Your task to perform on an android device: open app "Etsy: Buy & Sell Unique Items" (install if not already installed) Image 0: 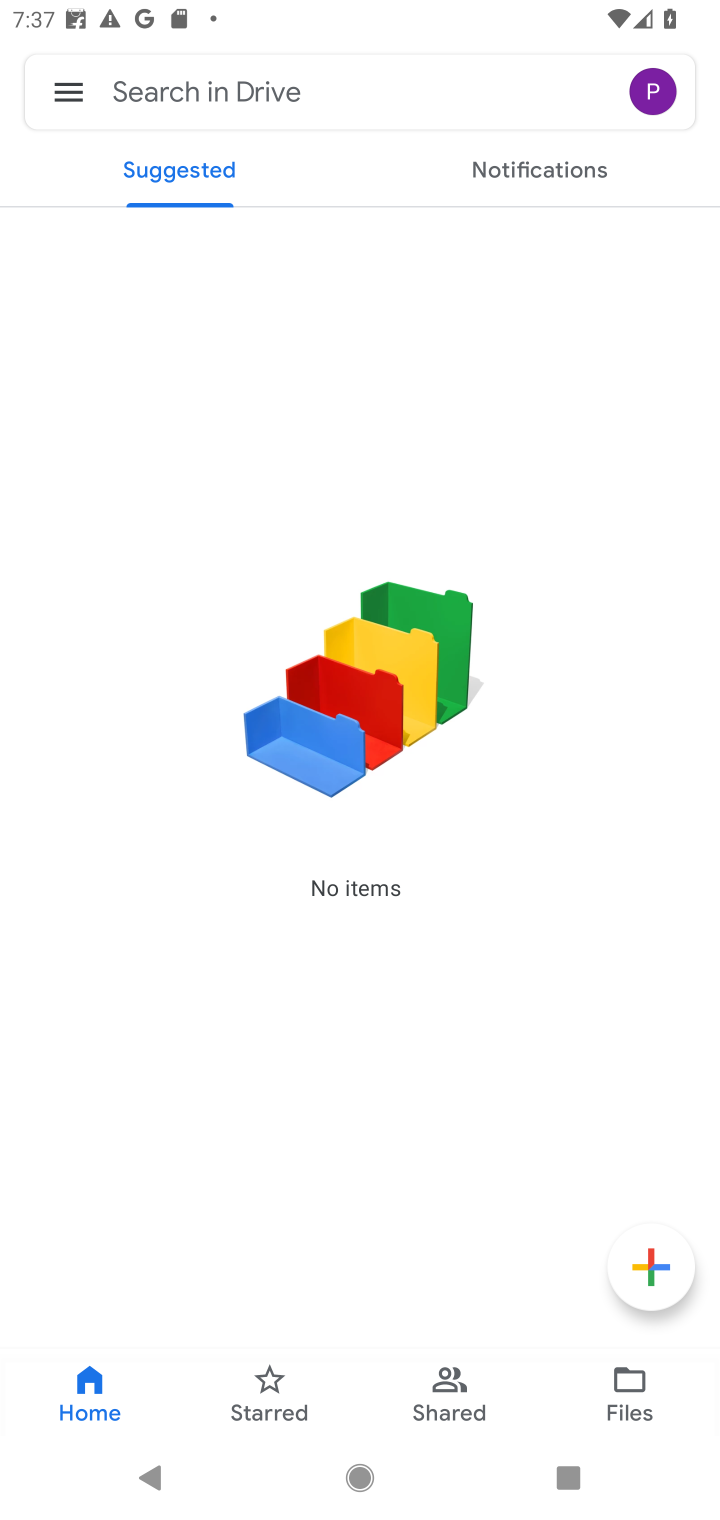
Step 0: press home button
Your task to perform on an android device: open app "Etsy: Buy & Sell Unique Items" (install if not already installed) Image 1: 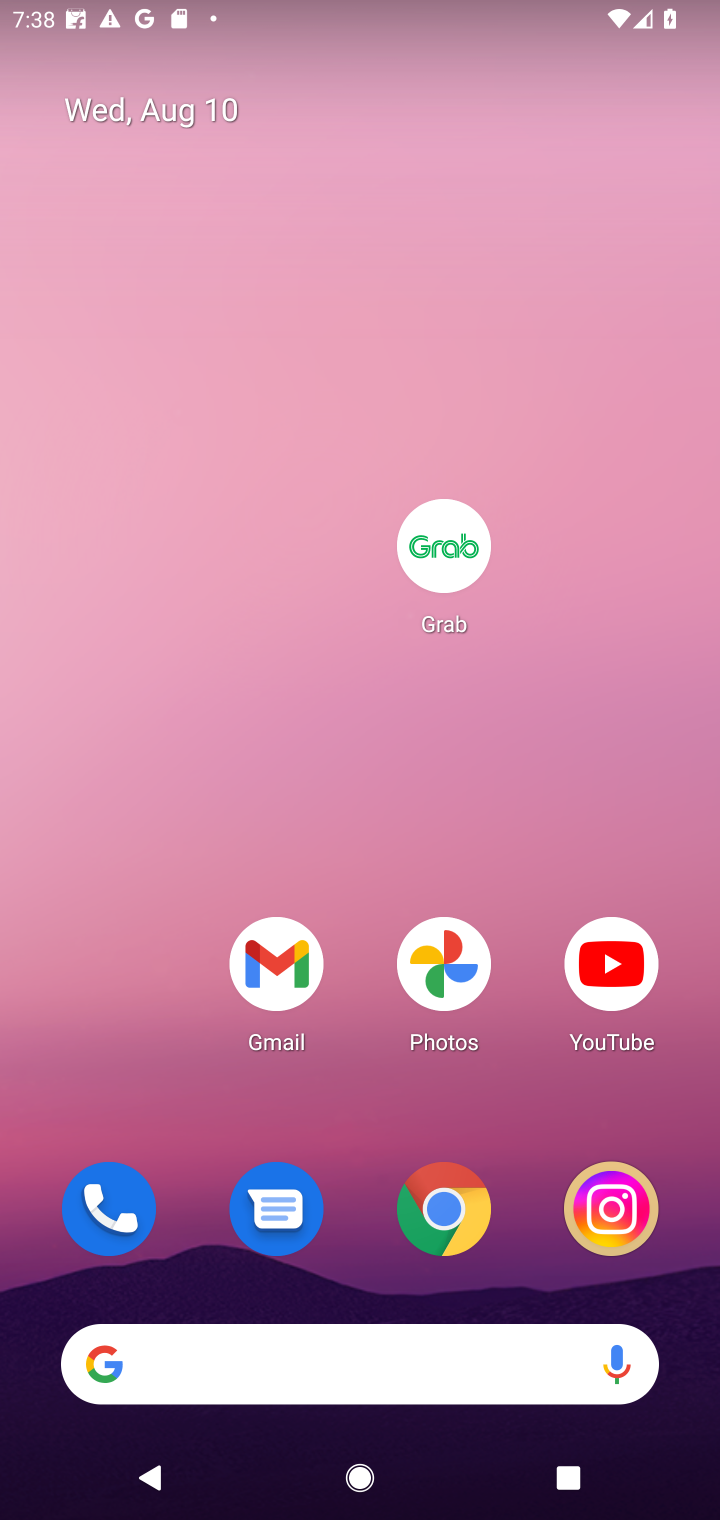
Step 1: drag from (364, 1275) to (389, 25)
Your task to perform on an android device: open app "Etsy: Buy & Sell Unique Items" (install if not already installed) Image 2: 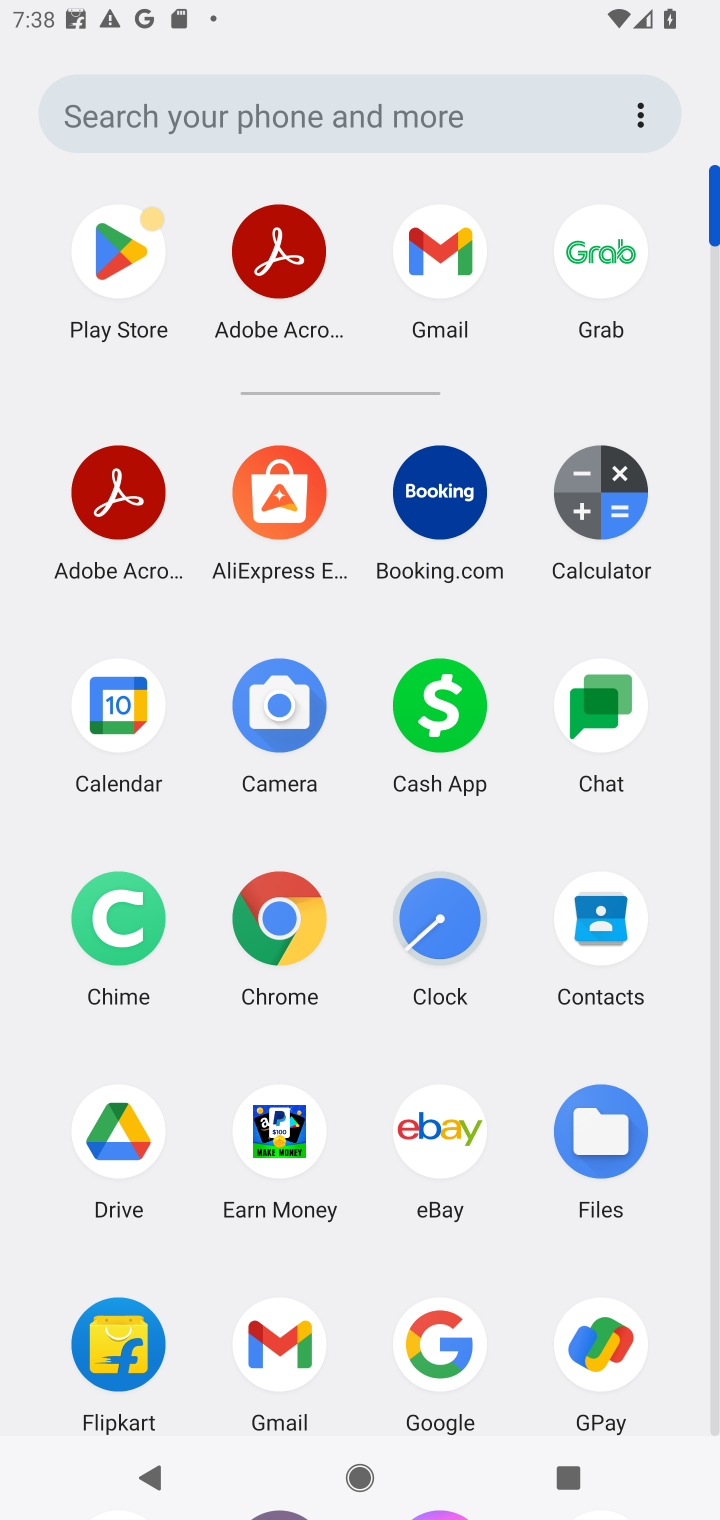
Step 2: click (156, 249)
Your task to perform on an android device: open app "Etsy: Buy & Sell Unique Items" (install if not already installed) Image 3: 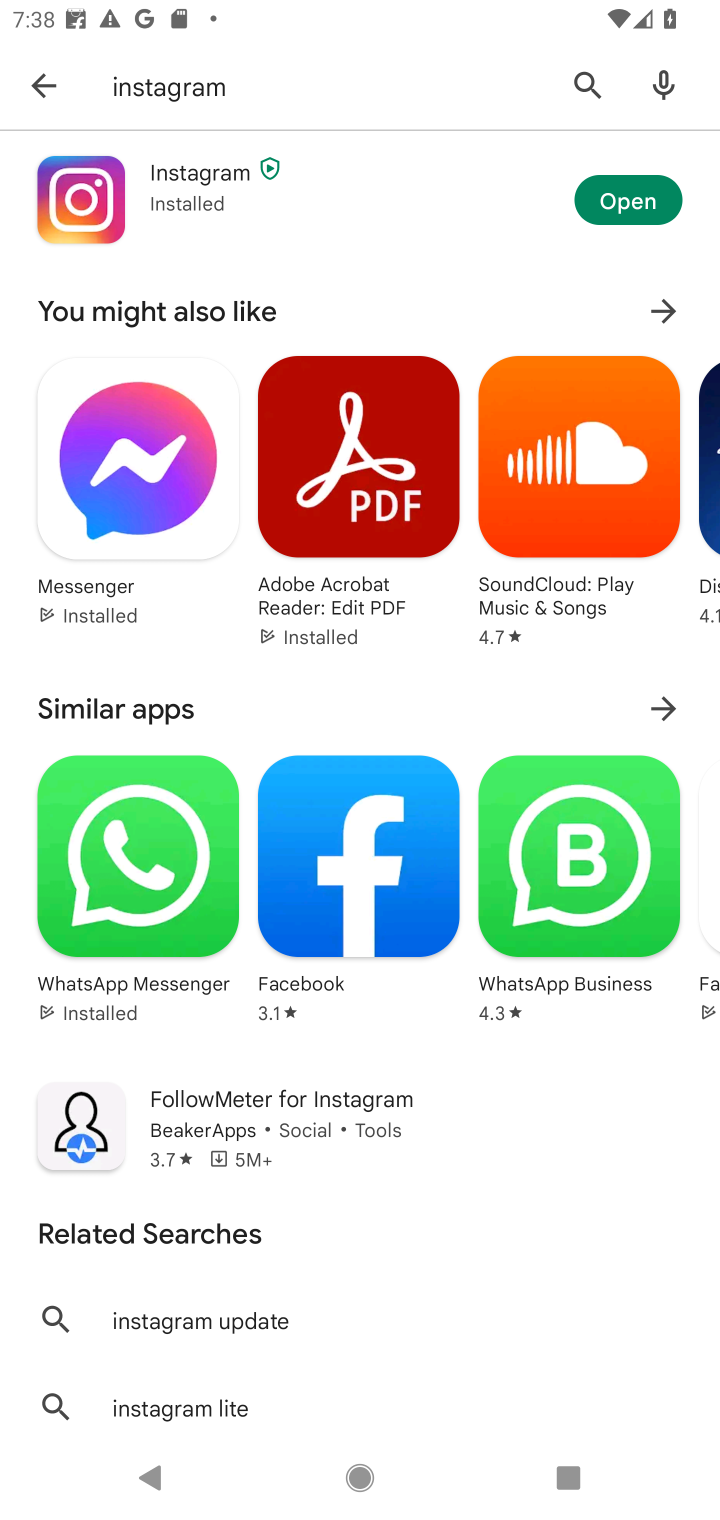
Step 3: click (605, 99)
Your task to perform on an android device: open app "Etsy: Buy & Sell Unique Items" (install if not already installed) Image 4: 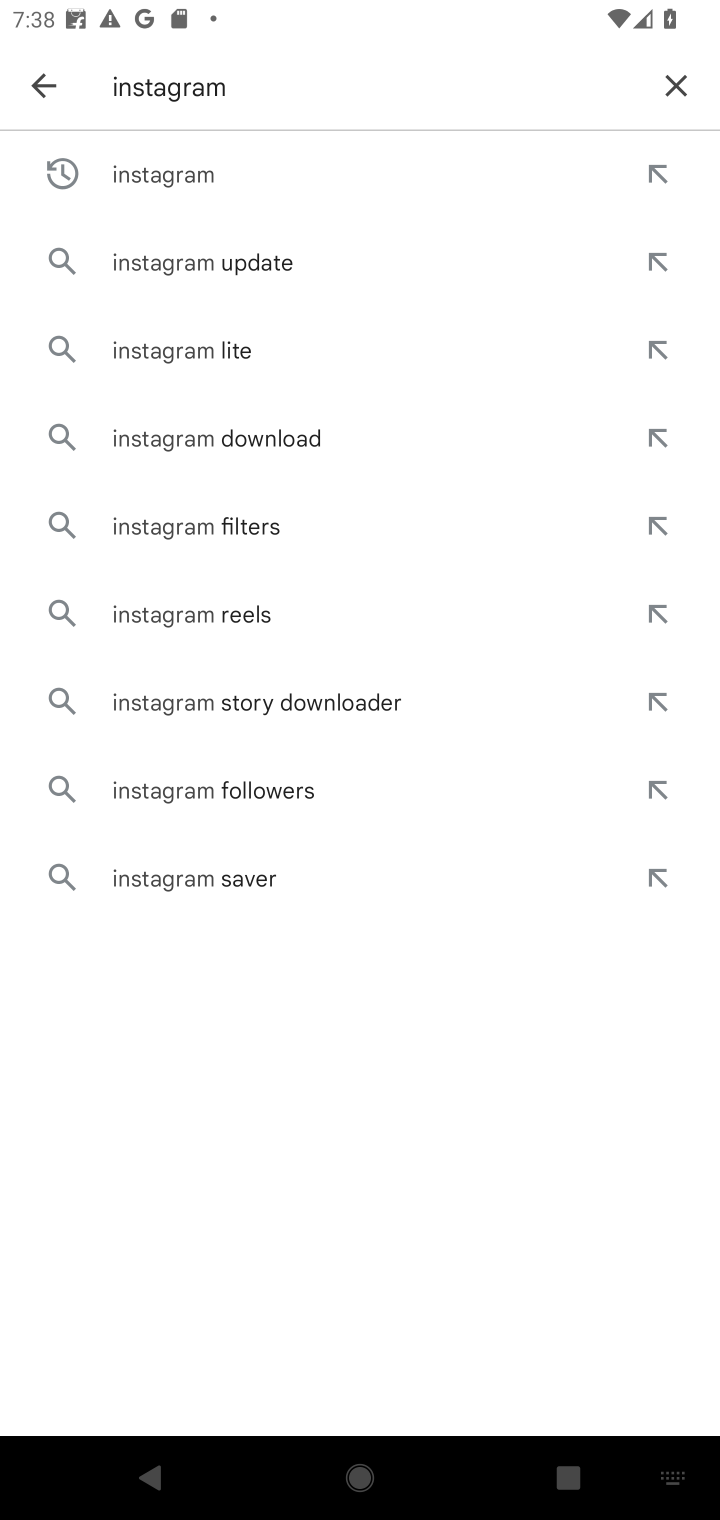
Step 4: click (690, 110)
Your task to perform on an android device: open app "Etsy: Buy & Sell Unique Items" (install if not already installed) Image 5: 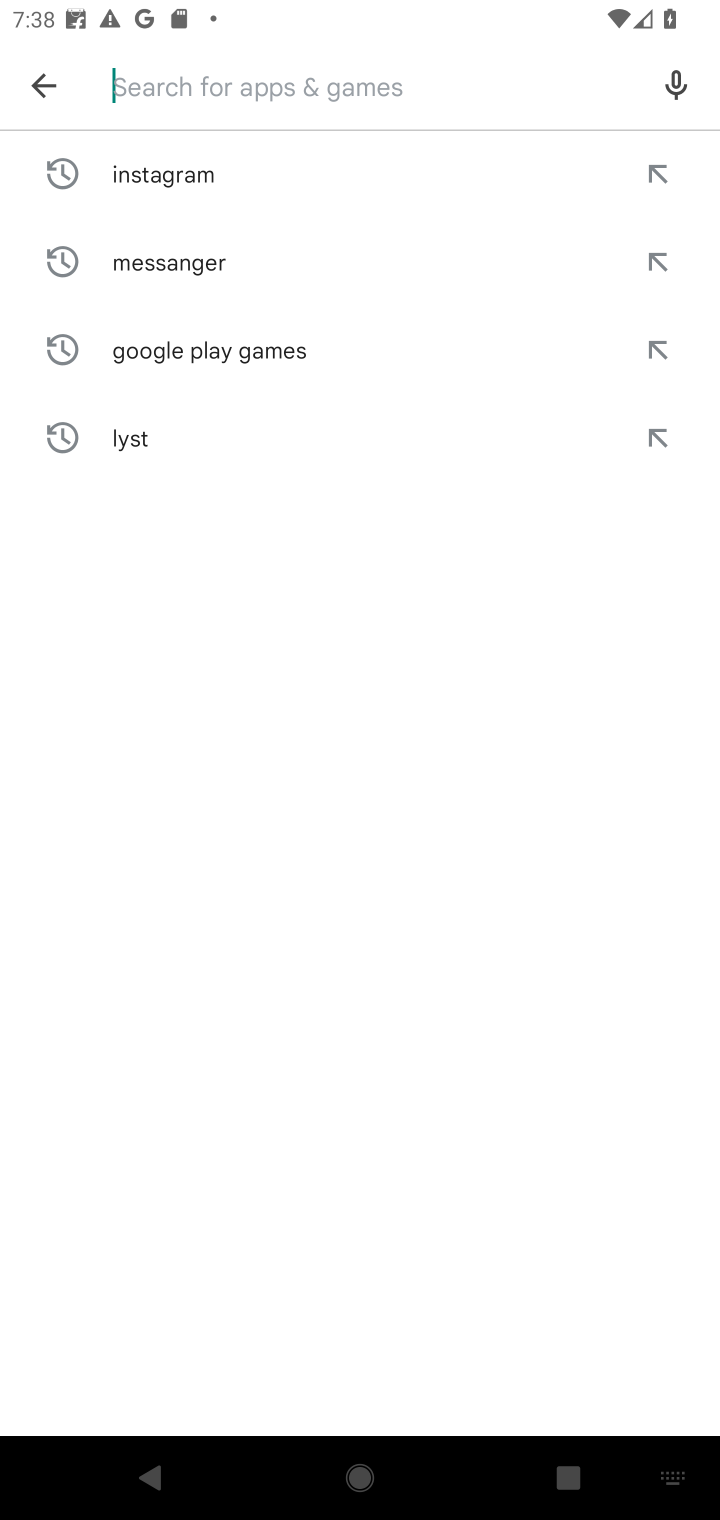
Step 5: type "etsy"
Your task to perform on an android device: open app "Etsy: Buy & Sell Unique Items" (install if not already installed) Image 6: 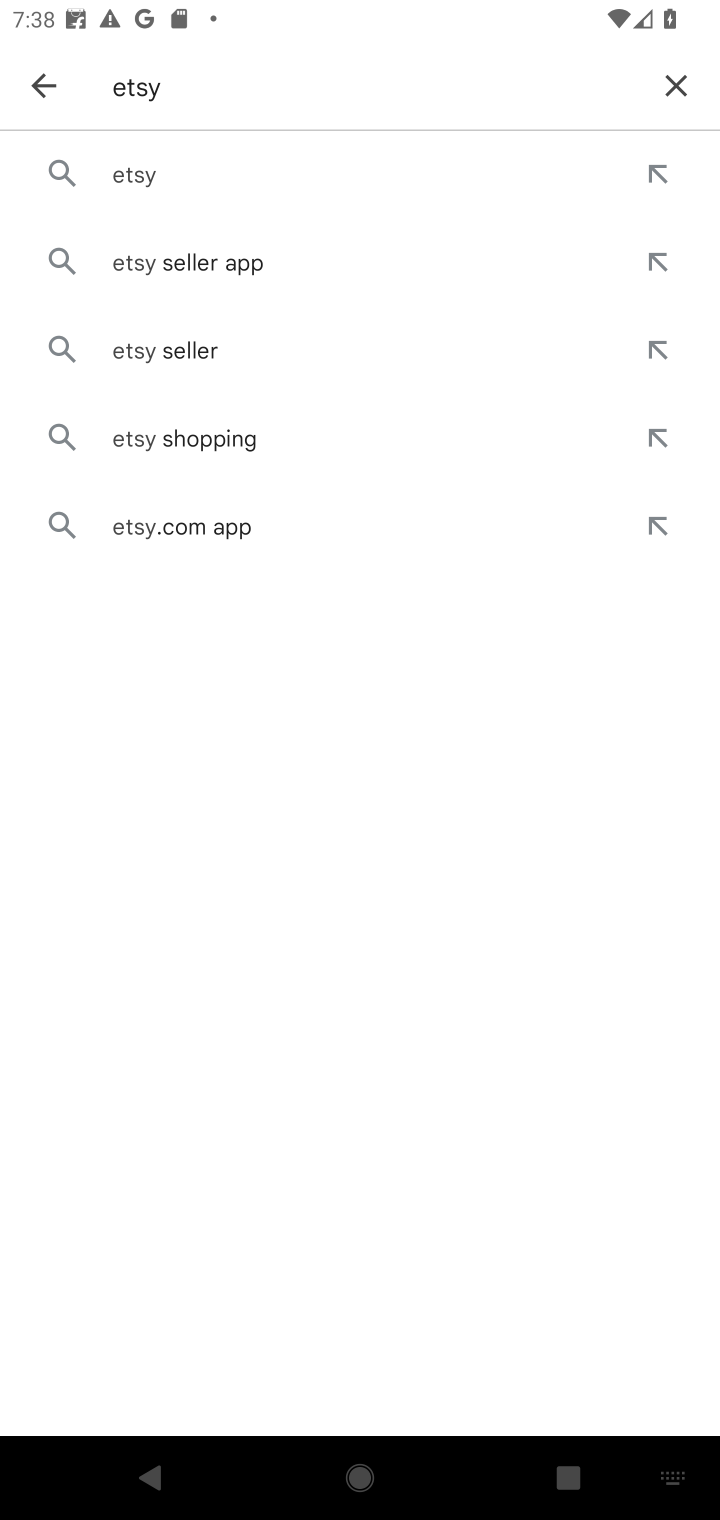
Step 6: click (246, 177)
Your task to perform on an android device: open app "Etsy: Buy & Sell Unique Items" (install if not already installed) Image 7: 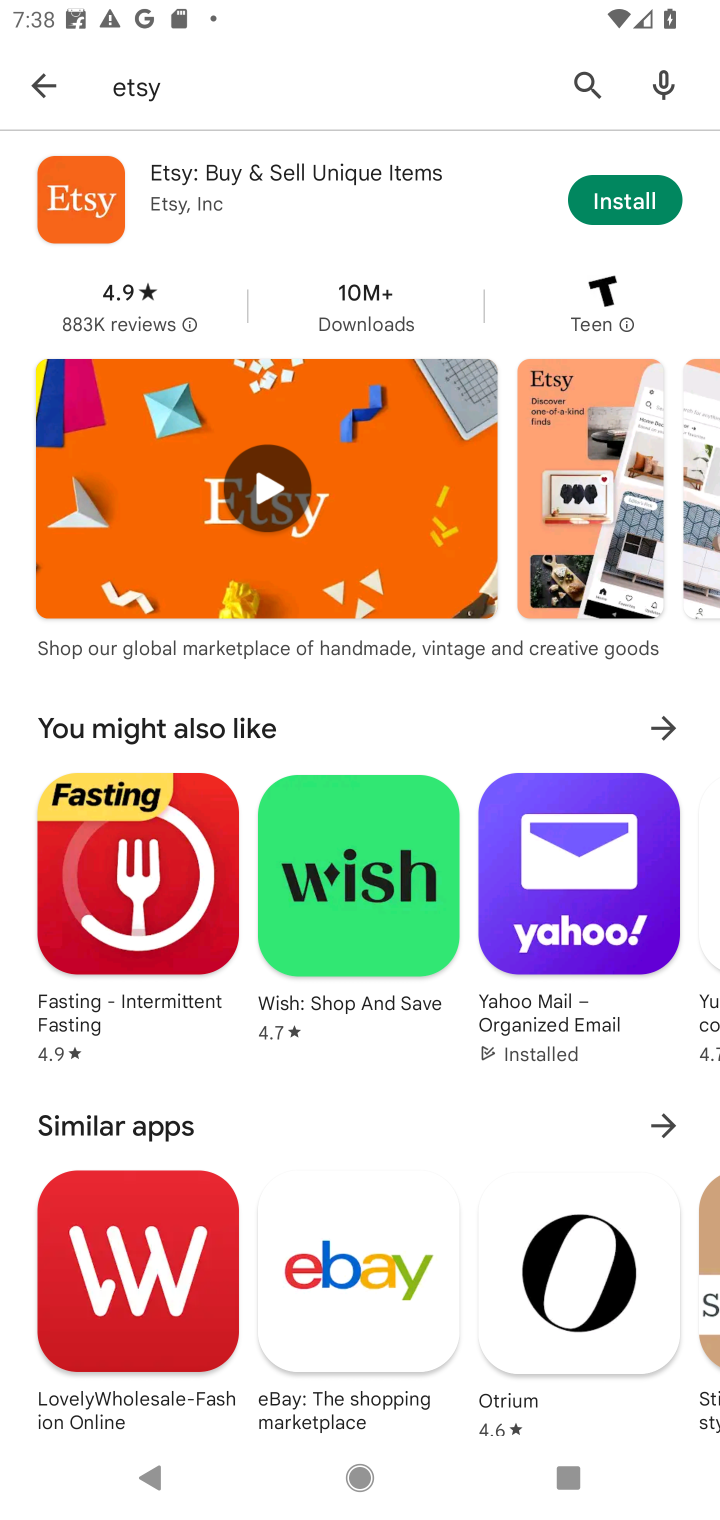
Step 7: click (581, 193)
Your task to perform on an android device: open app "Etsy: Buy & Sell Unique Items" (install if not already installed) Image 8: 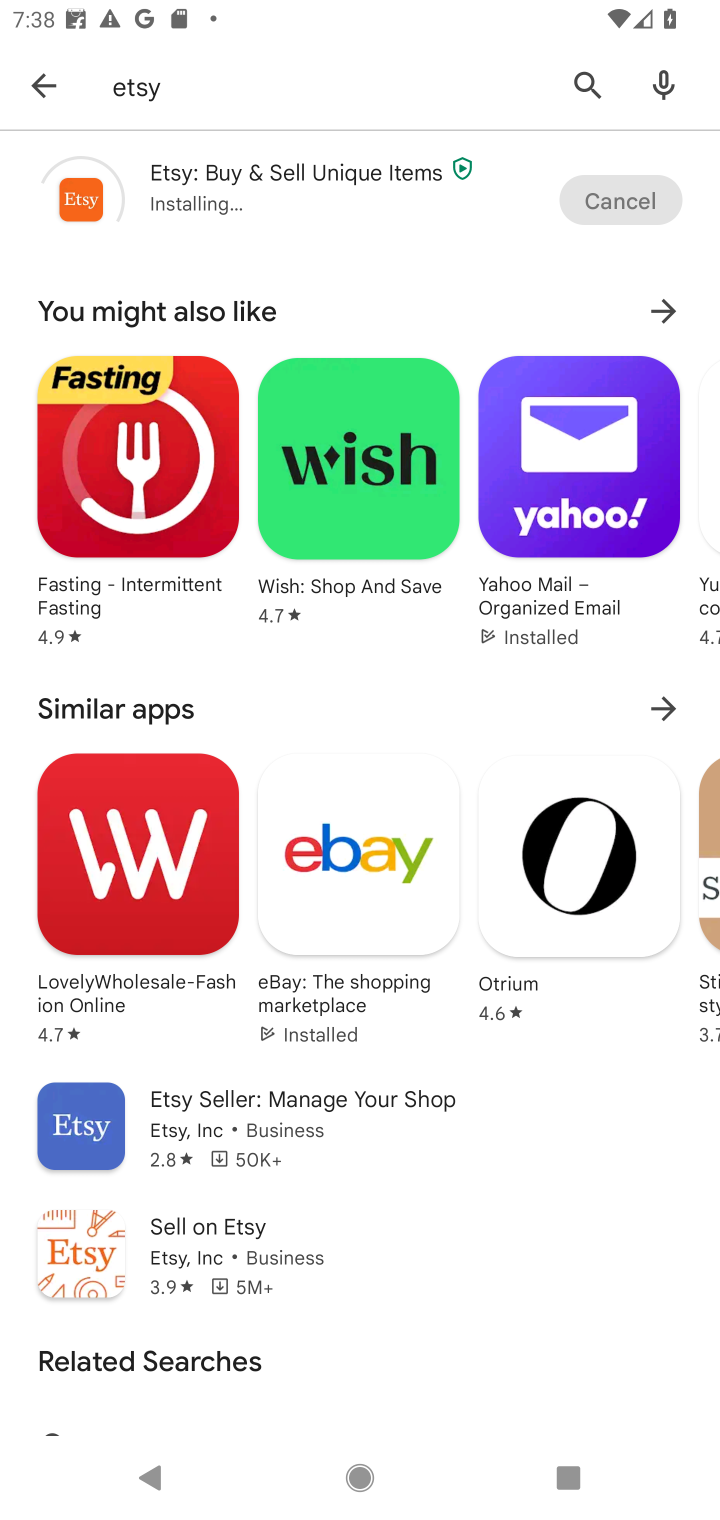
Step 8: click (569, 188)
Your task to perform on an android device: open app "Etsy: Buy & Sell Unique Items" (install if not already installed) Image 9: 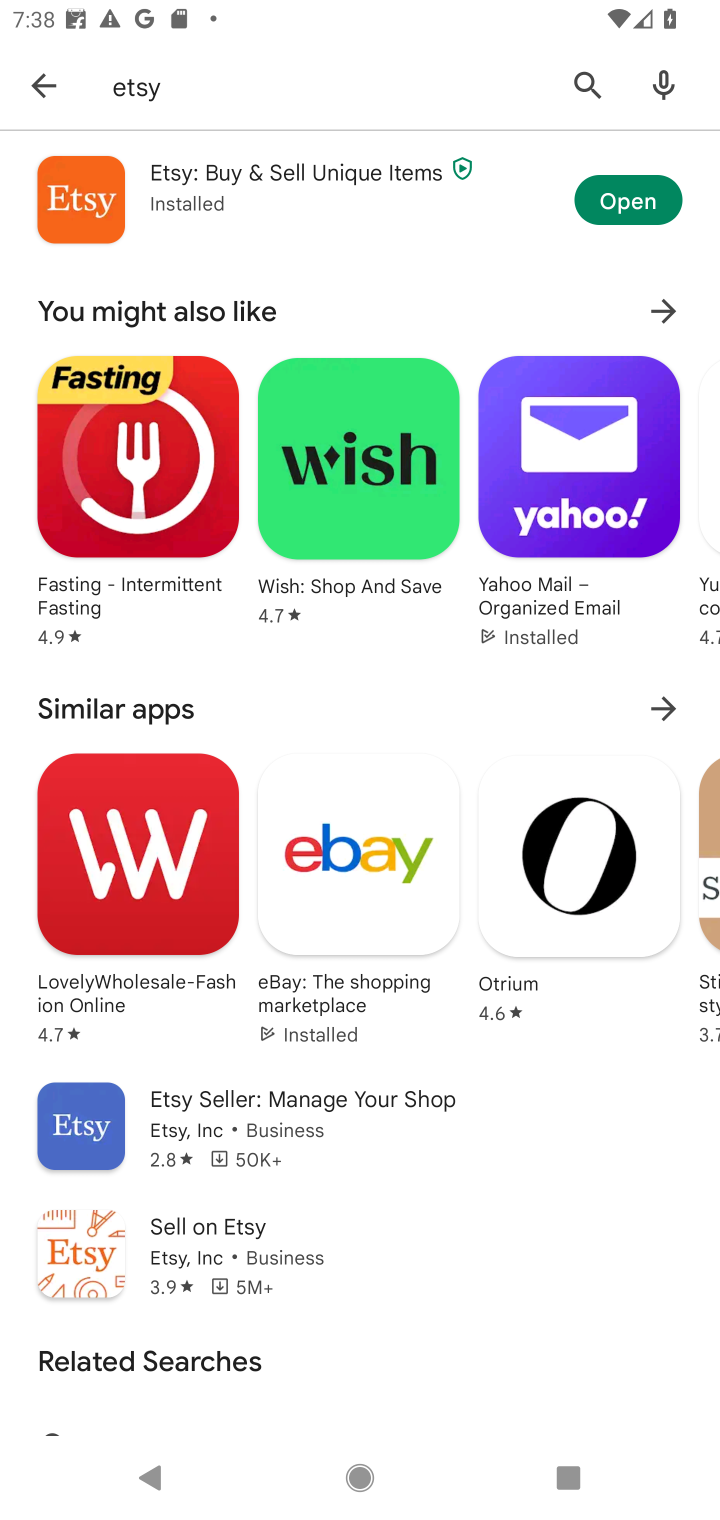
Step 9: click (598, 191)
Your task to perform on an android device: open app "Etsy: Buy & Sell Unique Items" (install if not already installed) Image 10: 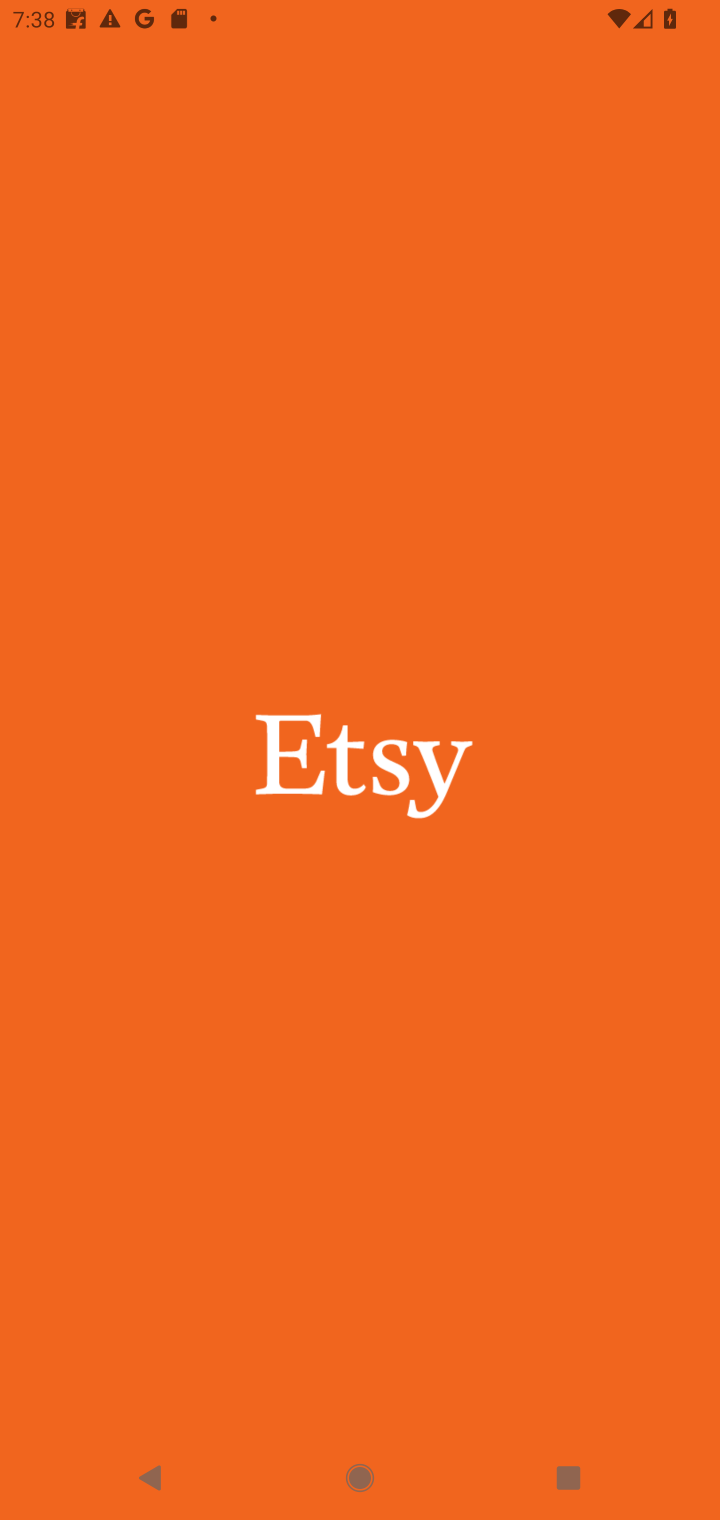
Step 10: task complete